Your task to perform on an android device: choose inbox layout in the gmail app Image 0: 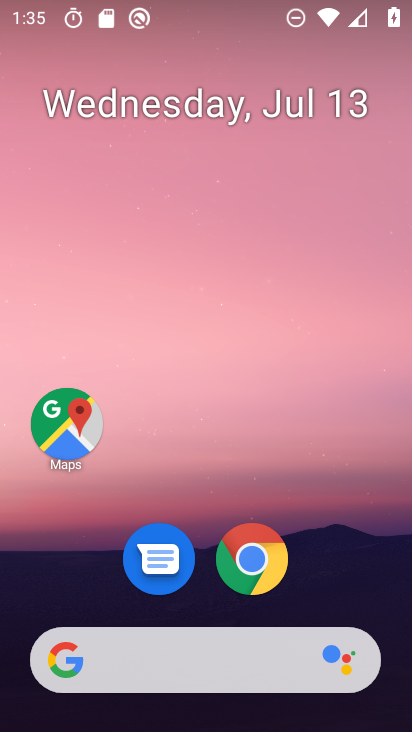
Step 0: drag from (181, 648) to (289, 196)
Your task to perform on an android device: choose inbox layout in the gmail app Image 1: 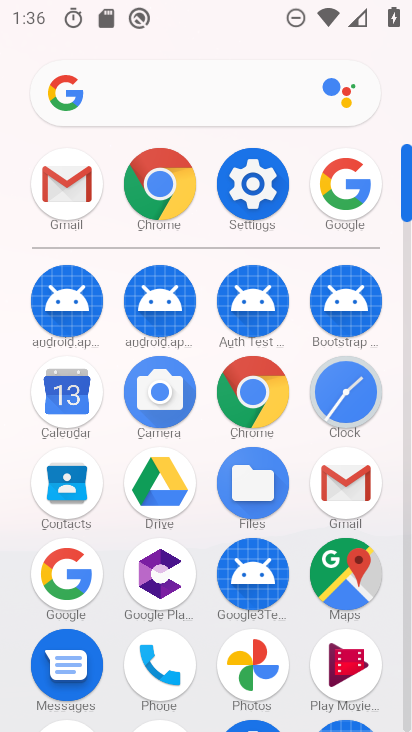
Step 1: click (345, 498)
Your task to perform on an android device: choose inbox layout in the gmail app Image 2: 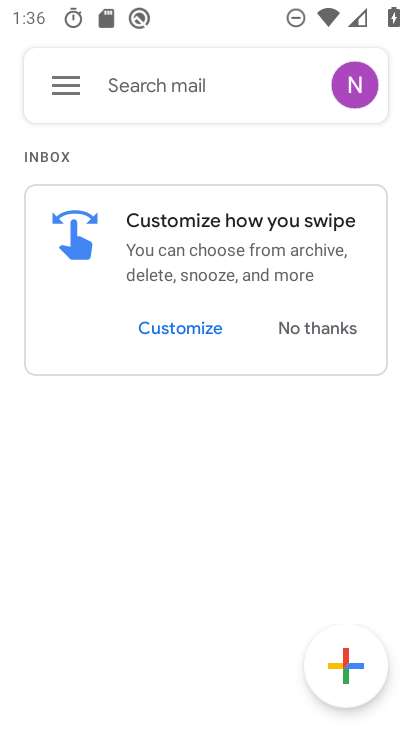
Step 2: click (74, 109)
Your task to perform on an android device: choose inbox layout in the gmail app Image 3: 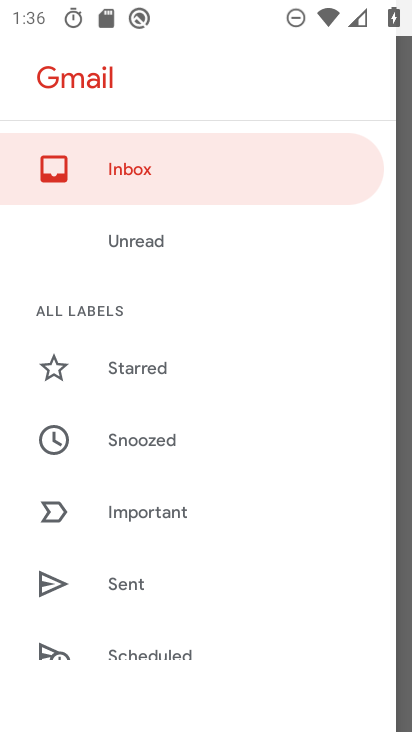
Step 3: task complete